Your task to perform on an android device: Open Maps and search for coffee Image 0: 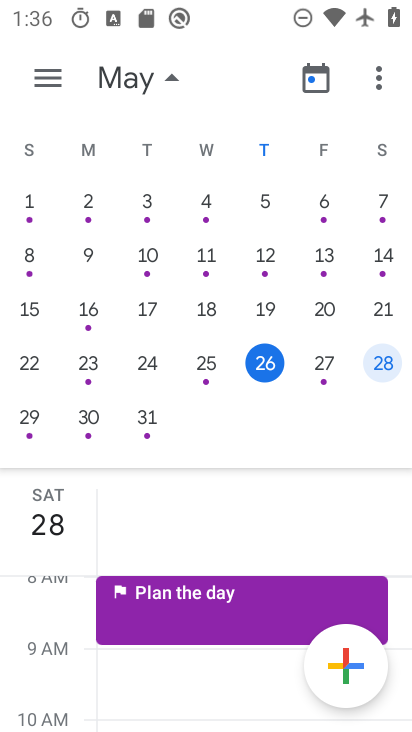
Step 0: press home button
Your task to perform on an android device: Open Maps and search for coffee Image 1: 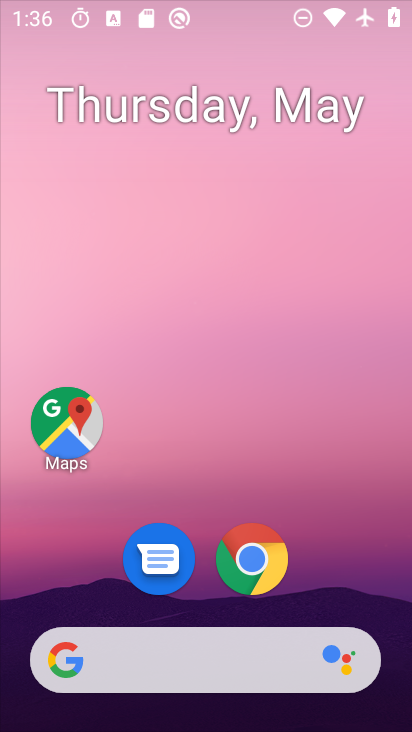
Step 1: drag from (279, 632) to (286, 93)
Your task to perform on an android device: Open Maps and search for coffee Image 2: 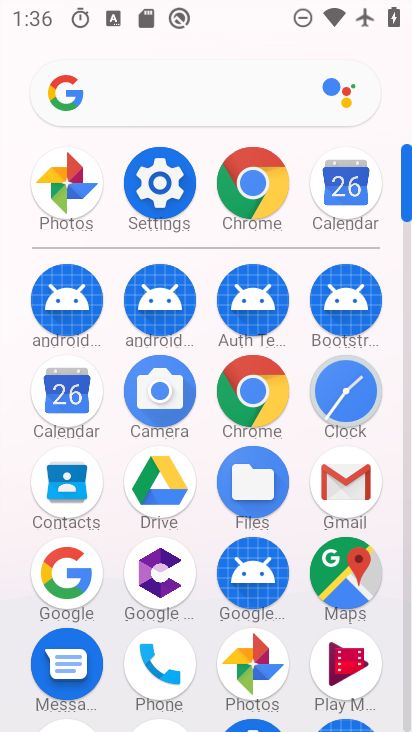
Step 2: click (338, 588)
Your task to perform on an android device: Open Maps and search for coffee Image 3: 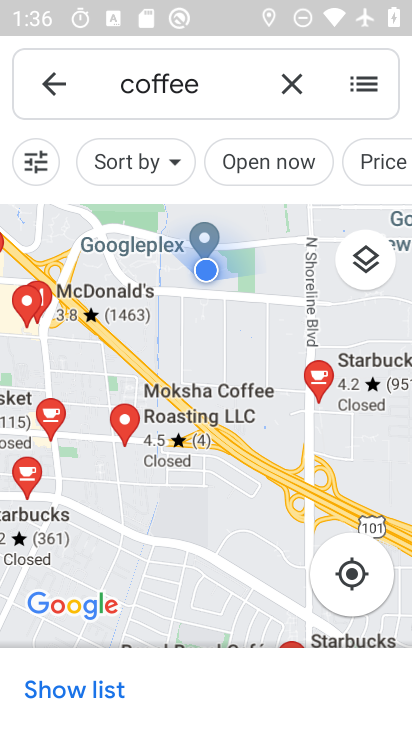
Step 3: task complete